Your task to perform on an android device: add a contact Image 0: 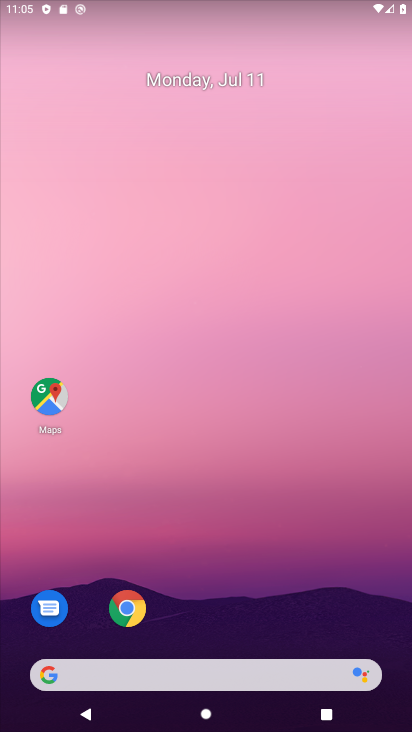
Step 0: drag from (207, 618) to (200, 12)
Your task to perform on an android device: add a contact Image 1: 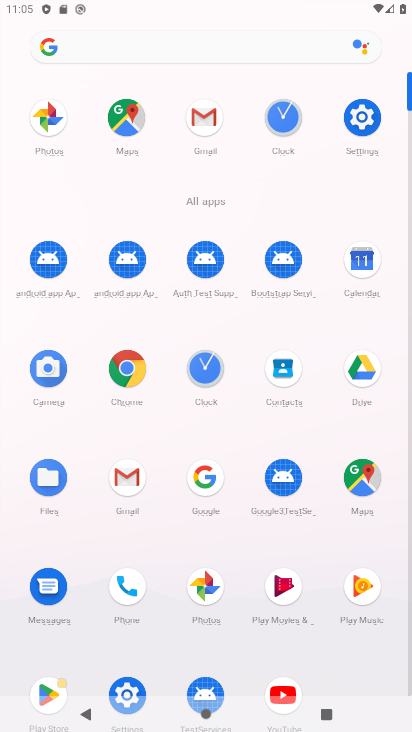
Step 1: click (289, 359)
Your task to perform on an android device: add a contact Image 2: 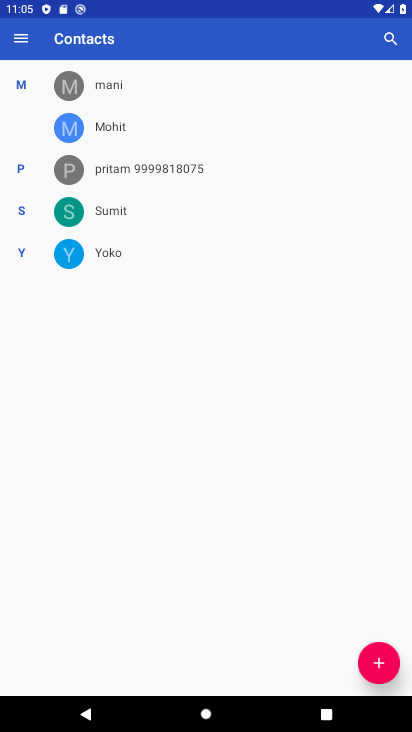
Step 2: click (374, 651)
Your task to perform on an android device: add a contact Image 3: 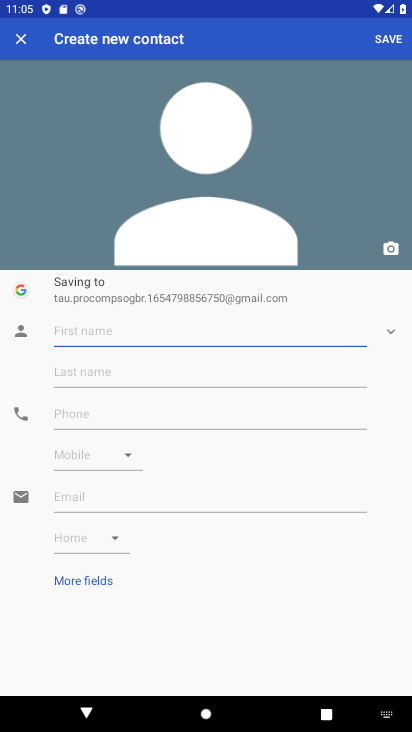
Step 3: type ",,,"
Your task to perform on an android device: add a contact Image 4: 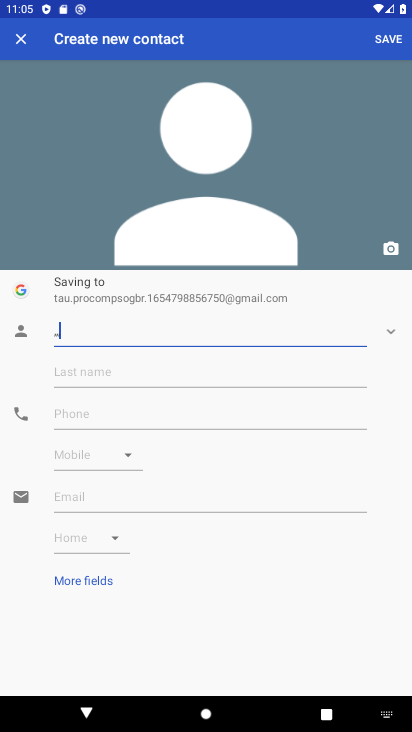
Step 4: click (94, 404)
Your task to perform on an android device: add a contact Image 5: 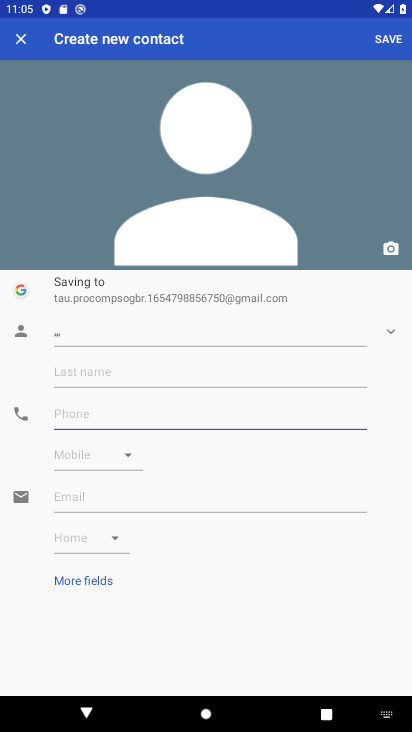
Step 5: type "098765432"
Your task to perform on an android device: add a contact Image 6: 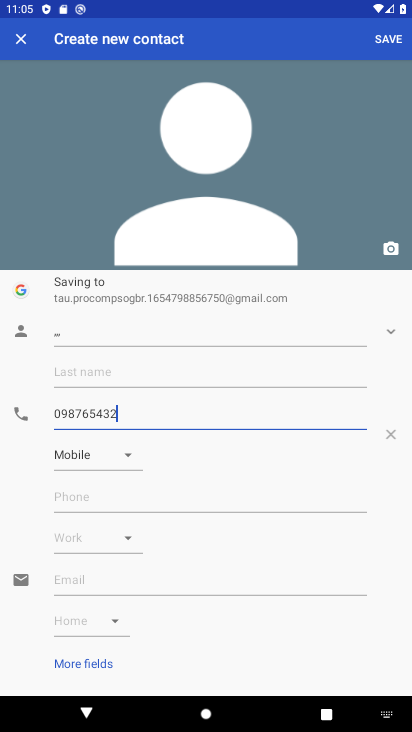
Step 6: click (376, 38)
Your task to perform on an android device: add a contact Image 7: 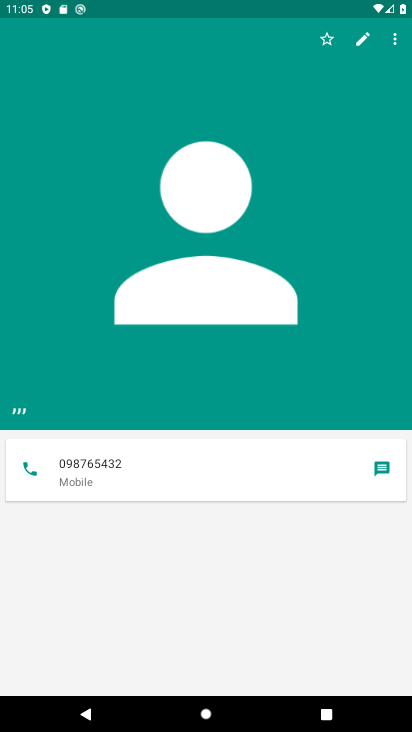
Step 7: task complete